Your task to perform on an android device: empty trash in the gmail app Image 0: 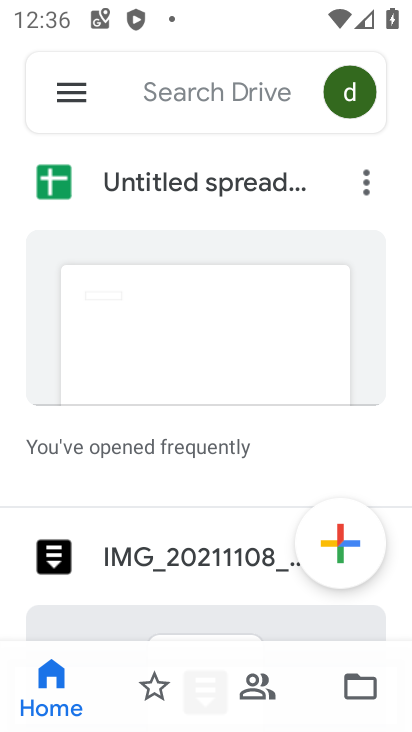
Step 0: press home button
Your task to perform on an android device: empty trash in the gmail app Image 1: 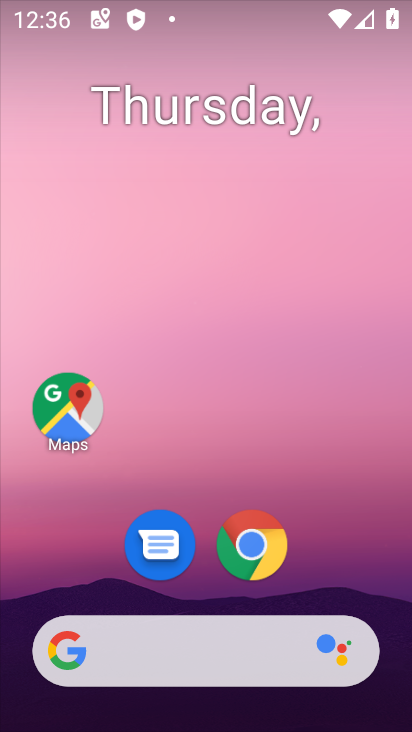
Step 1: drag from (222, 590) to (216, 245)
Your task to perform on an android device: empty trash in the gmail app Image 2: 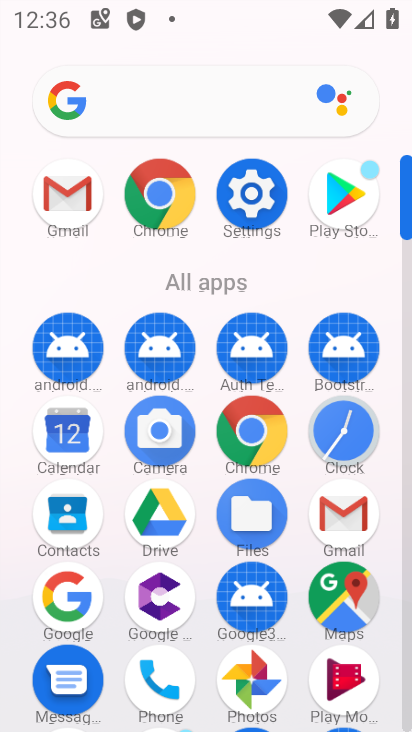
Step 2: click (329, 510)
Your task to perform on an android device: empty trash in the gmail app Image 3: 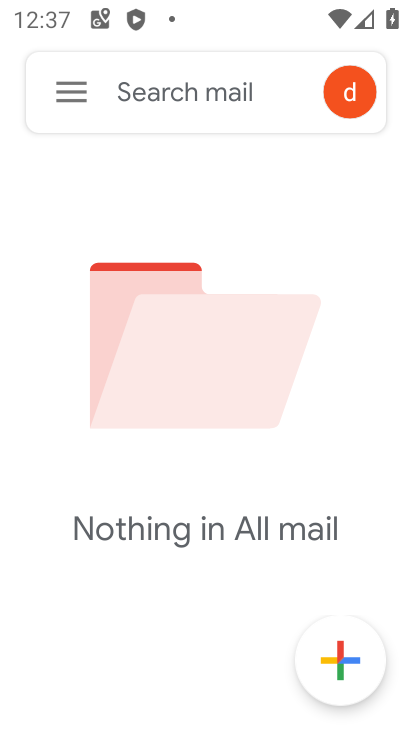
Step 3: click (74, 108)
Your task to perform on an android device: empty trash in the gmail app Image 4: 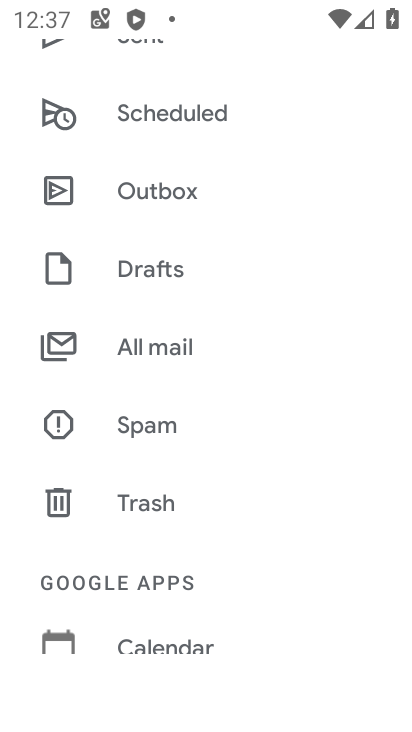
Step 4: click (137, 511)
Your task to perform on an android device: empty trash in the gmail app Image 5: 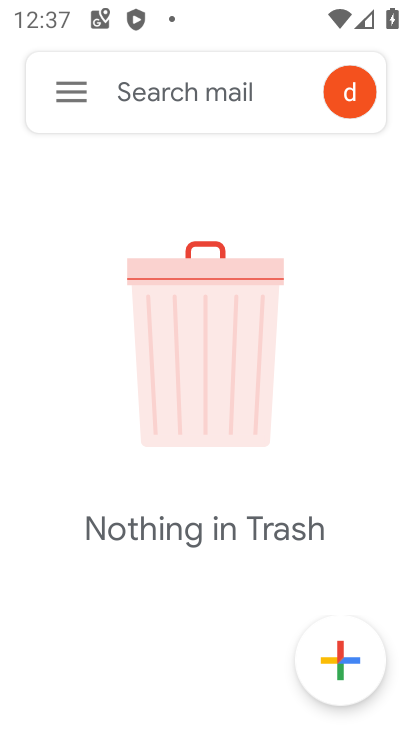
Step 5: task complete